Your task to perform on an android device: change the clock display to analog Image 0: 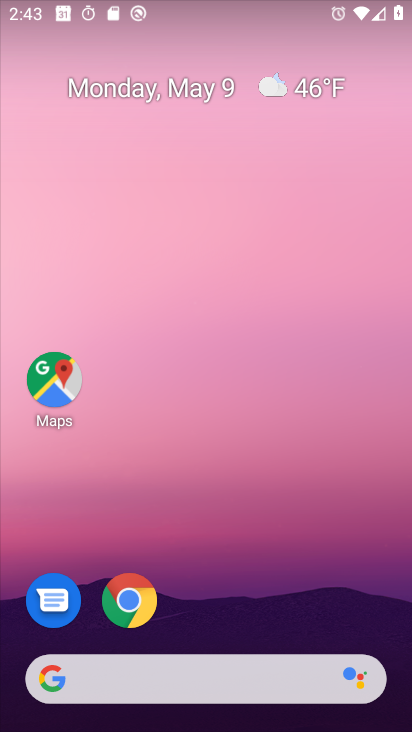
Step 0: drag from (217, 679) to (226, 305)
Your task to perform on an android device: change the clock display to analog Image 1: 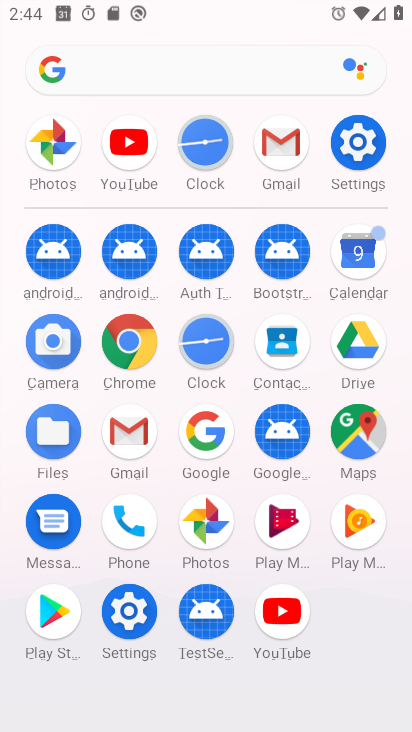
Step 1: click (210, 143)
Your task to perform on an android device: change the clock display to analog Image 2: 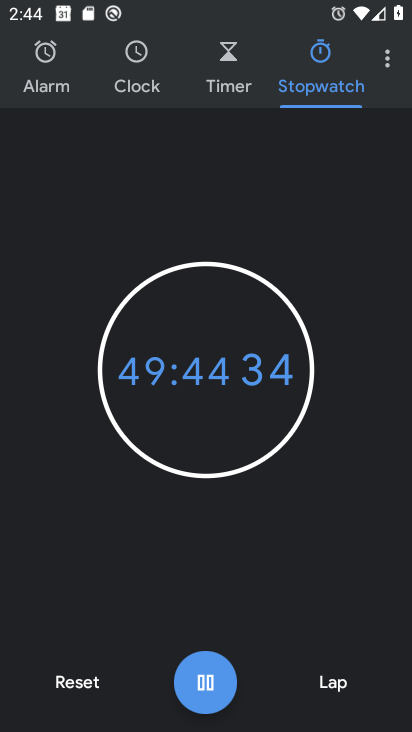
Step 2: click (386, 60)
Your task to perform on an android device: change the clock display to analog Image 3: 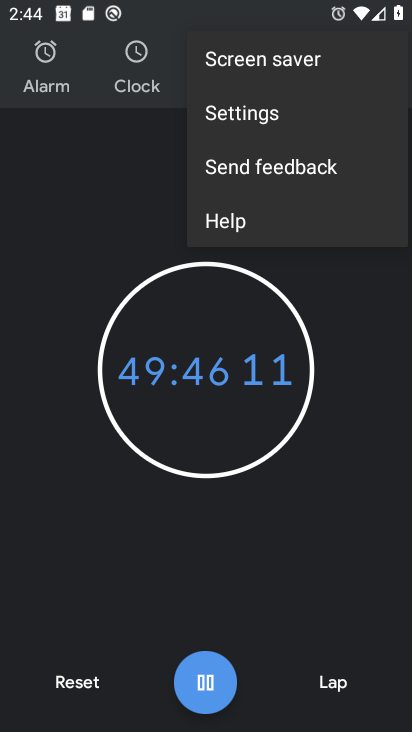
Step 3: click (250, 111)
Your task to perform on an android device: change the clock display to analog Image 4: 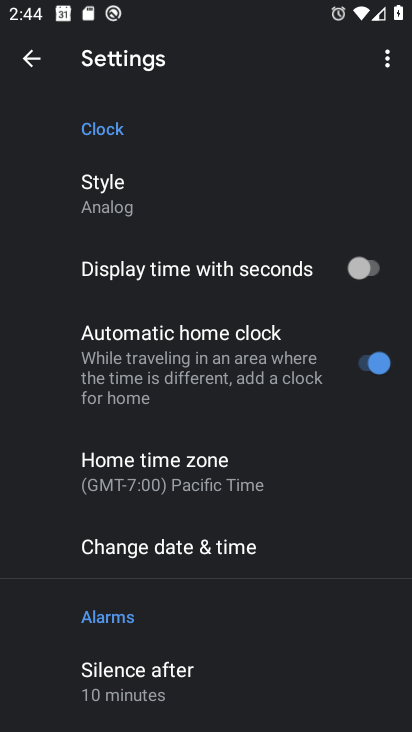
Step 4: task complete